Your task to perform on an android device: Go to Maps Image 0: 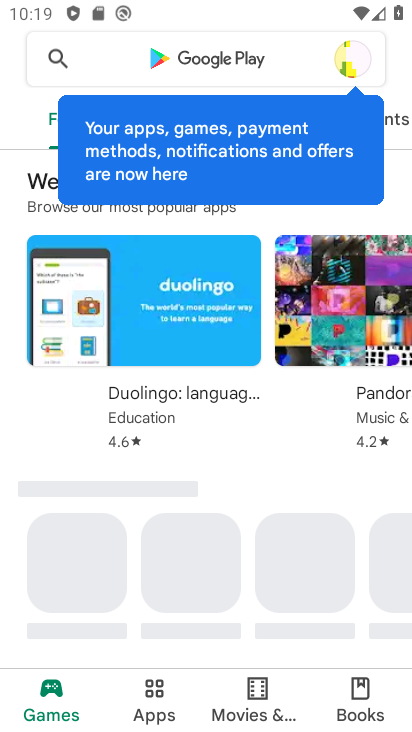
Step 0: press home button
Your task to perform on an android device: Go to Maps Image 1: 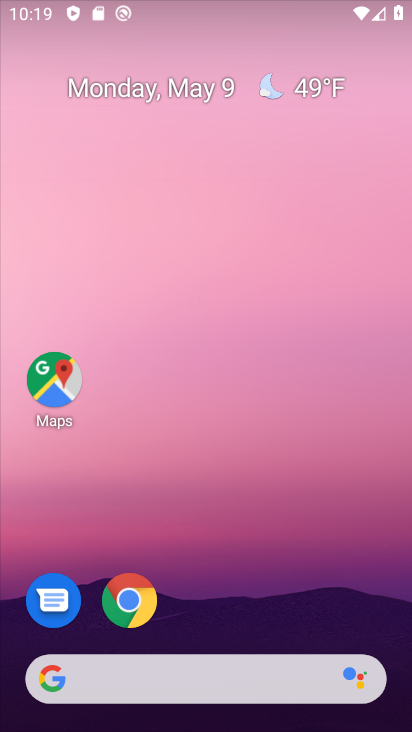
Step 1: drag from (381, 582) to (393, 165)
Your task to perform on an android device: Go to Maps Image 2: 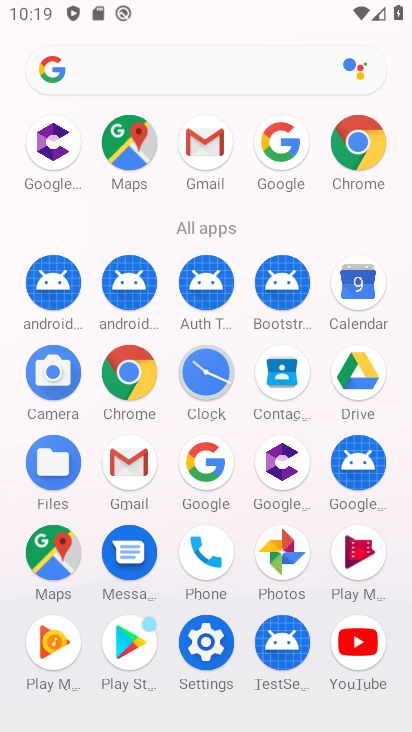
Step 2: click (61, 575)
Your task to perform on an android device: Go to Maps Image 3: 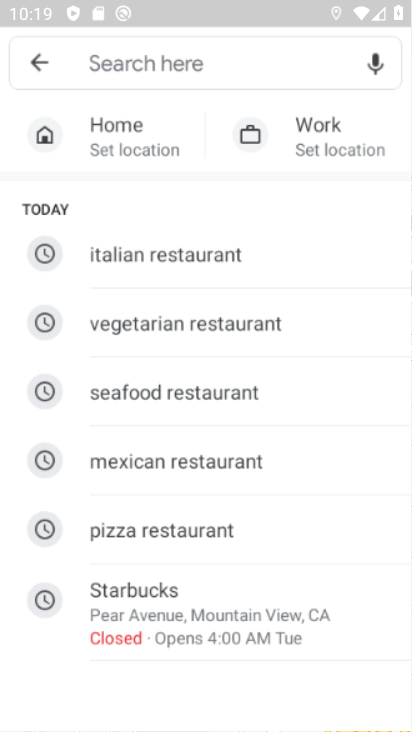
Step 3: click (140, 66)
Your task to perform on an android device: Go to Maps Image 4: 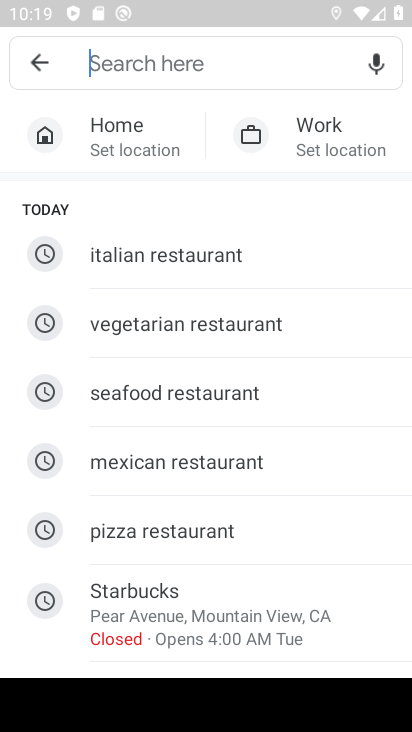
Step 4: task complete